Your task to perform on an android device: check storage Image 0: 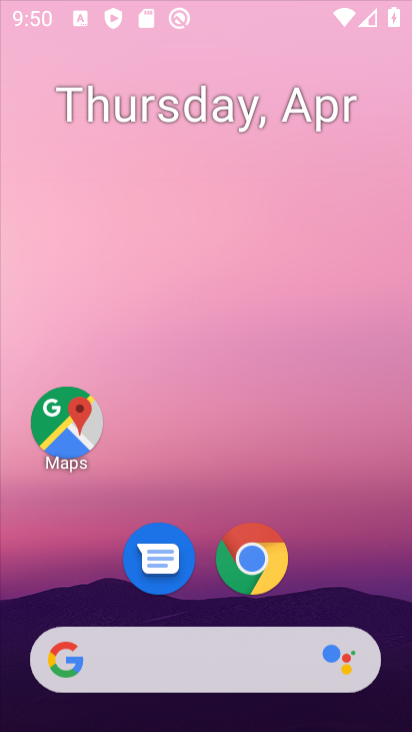
Step 0: click (162, 48)
Your task to perform on an android device: check storage Image 1: 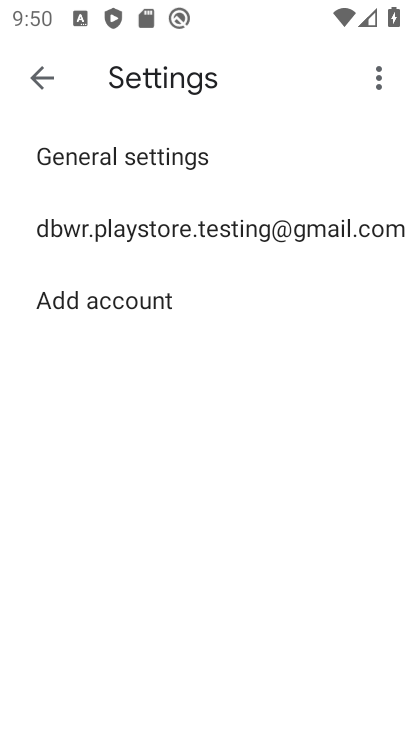
Step 1: press home button
Your task to perform on an android device: check storage Image 2: 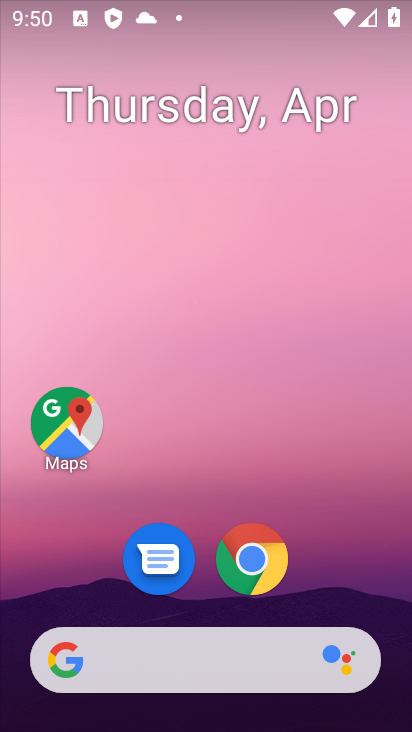
Step 2: drag from (238, 723) to (213, 152)
Your task to perform on an android device: check storage Image 3: 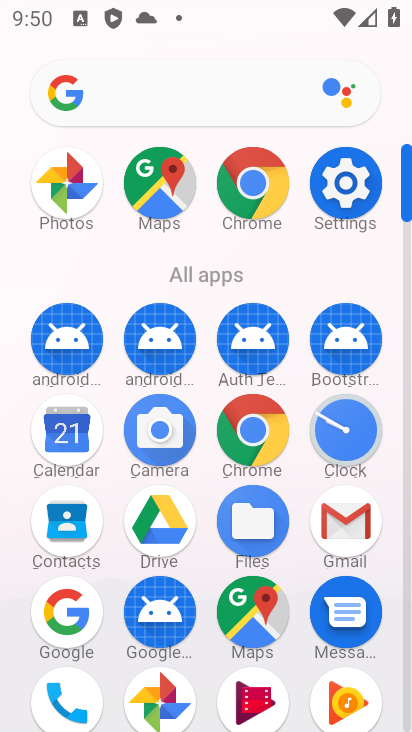
Step 3: click (351, 181)
Your task to perform on an android device: check storage Image 4: 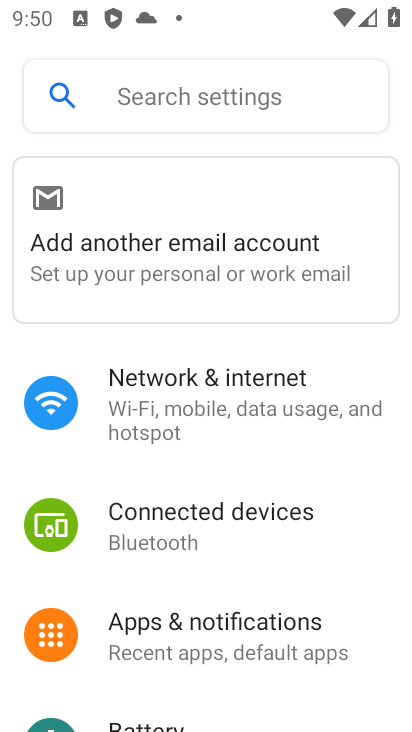
Step 4: drag from (268, 611) to (192, 49)
Your task to perform on an android device: check storage Image 5: 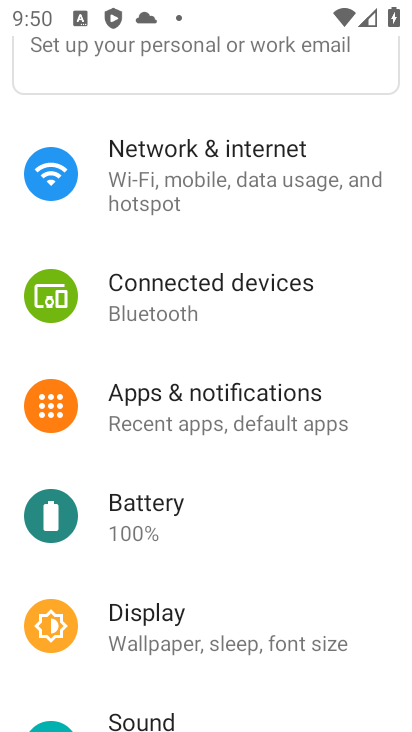
Step 5: drag from (275, 664) to (223, 112)
Your task to perform on an android device: check storage Image 6: 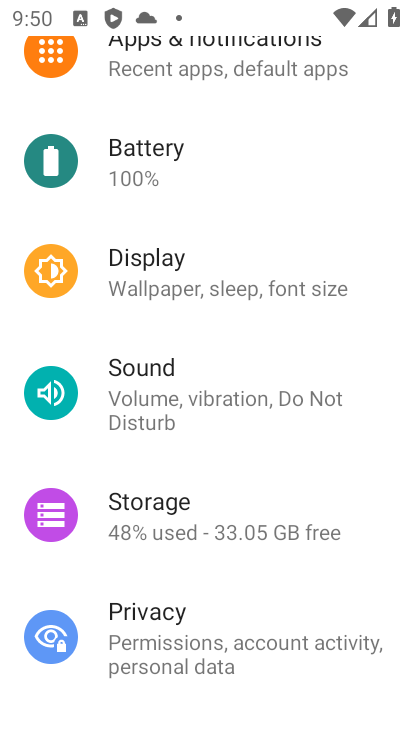
Step 6: click (256, 520)
Your task to perform on an android device: check storage Image 7: 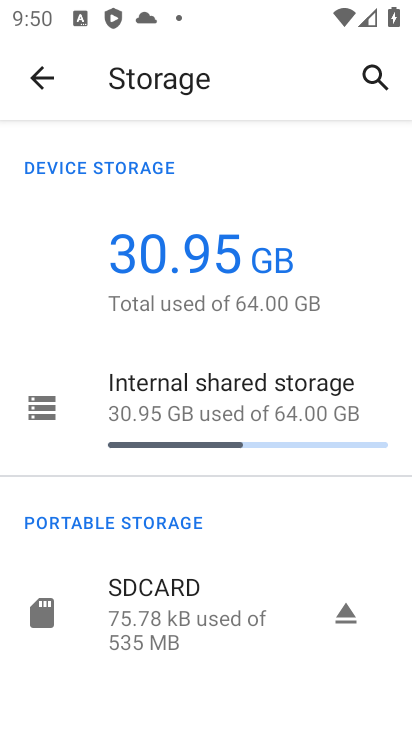
Step 7: task complete